Your task to perform on an android device: open the mobile data screen to see how much data has been used Image 0: 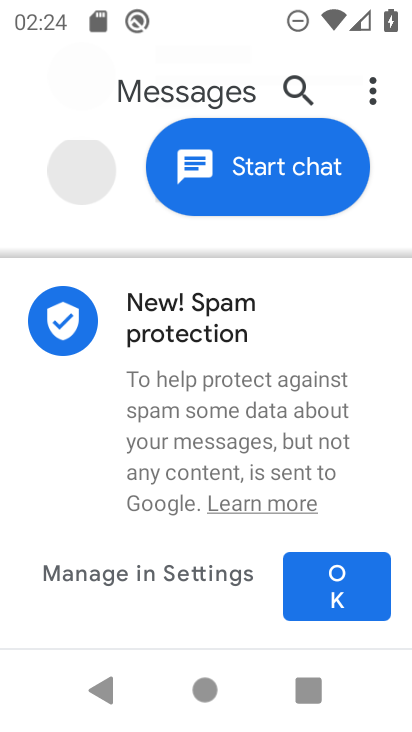
Step 0: press home button
Your task to perform on an android device: open the mobile data screen to see how much data has been used Image 1: 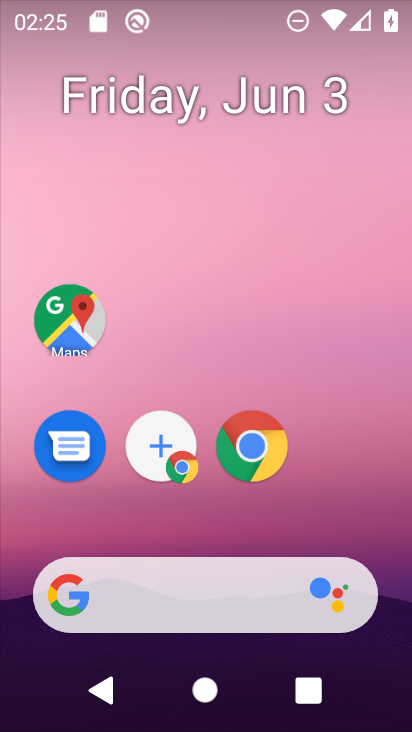
Step 1: drag from (155, 636) to (219, 22)
Your task to perform on an android device: open the mobile data screen to see how much data has been used Image 2: 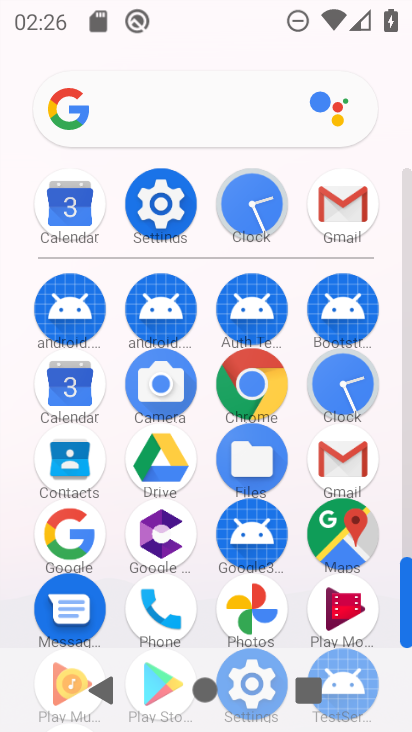
Step 2: click (160, 211)
Your task to perform on an android device: open the mobile data screen to see how much data has been used Image 3: 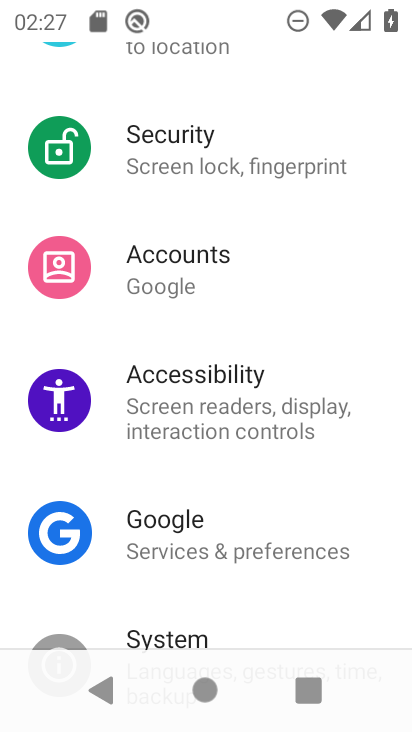
Step 3: drag from (193, 174) to (103, 693)
Your task to perform on an android device: open the mobile data screen to see how much data has been used Image 4: 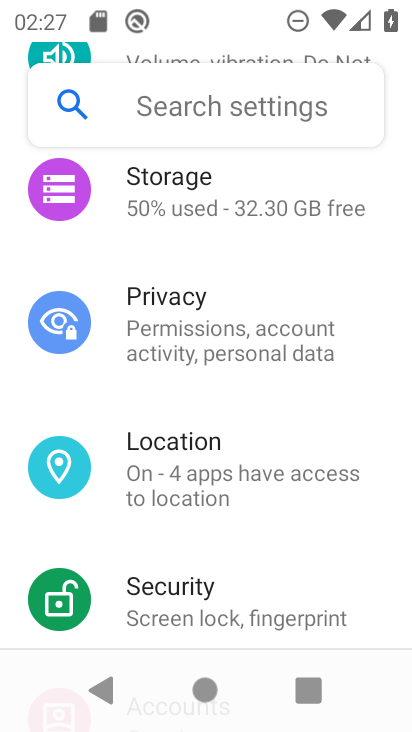
Step 4: drag from (292, 231) to (182, 656)
Your task to perform on an android device: open the mobile data screen to see how much data has been used Image 5: 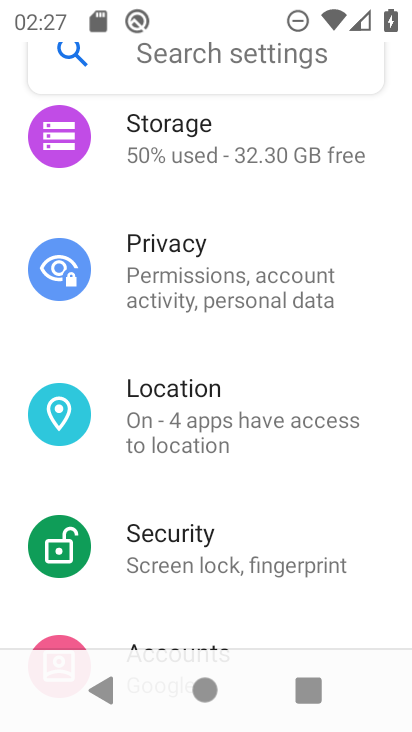
Step 5: drag from (323, 206) to (287, 731)
Your task to perform on an android device: open the mobile data screen to see how much data has been used Image 6: 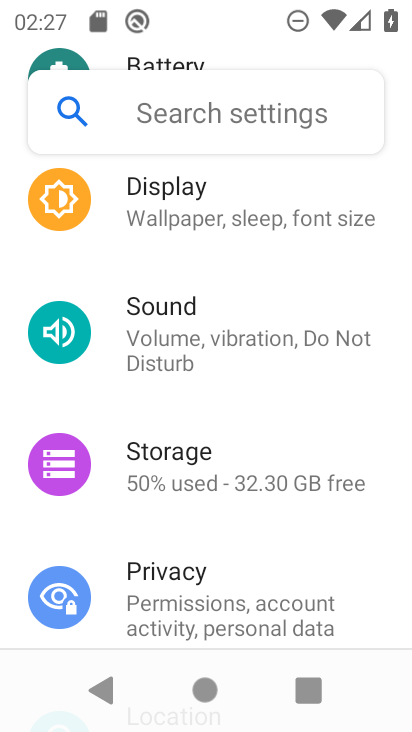
Step 6: drag from (301, 193) to (288, 717)
Your task to perform on an android device: open the mobile data screen to see how much data has been used Image 7: 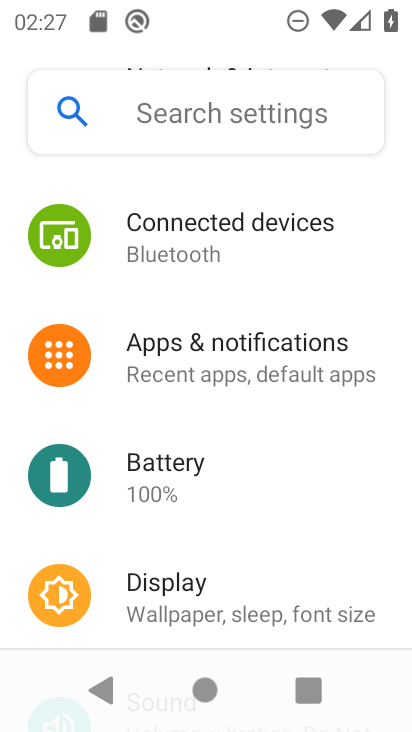
Step 7: drag from (320, 227) to (232, 706)
Your task to perform on an android device: open the mobile data screen to see how much data has been used Image 8: 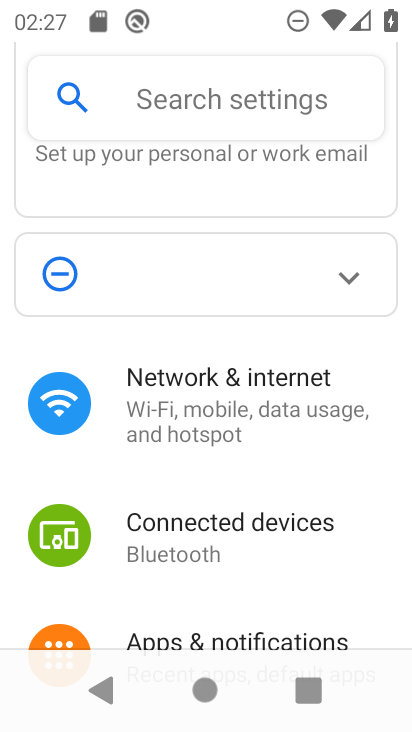
Step 8: click (226, 405)
Your task to perform on an android device: open the mobile data screen to see how much data has been used Image 9: 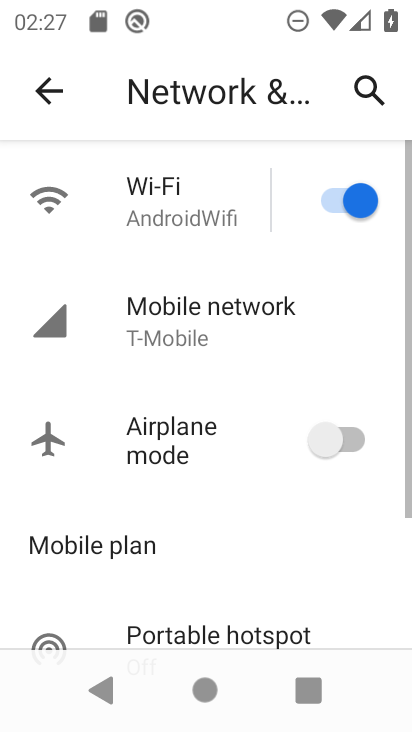
Step 9: click (163, 322)
Your task to perform on an android device: open the mobile data screen to see how much data has been used Image 10: 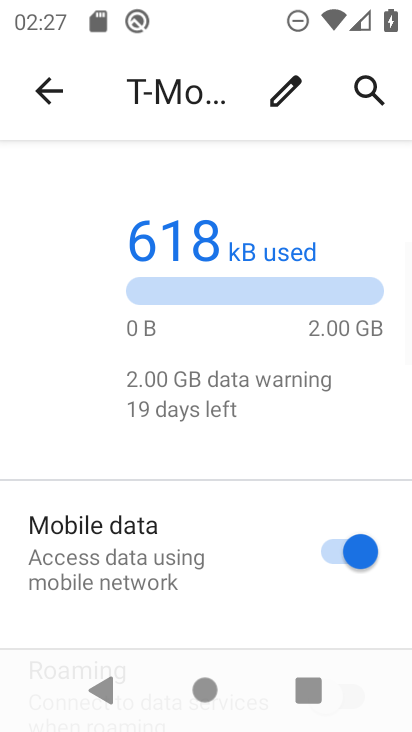
Step 10: task complete